Your task to perform on an android device: turn off location history Image 0: 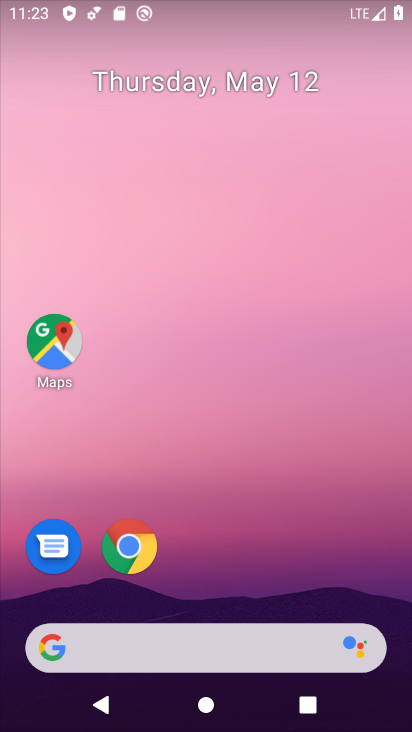
Step 0: drag from (278, 542) to (246, 96)
Your task to perform on an android device: turn off location history Image 1: 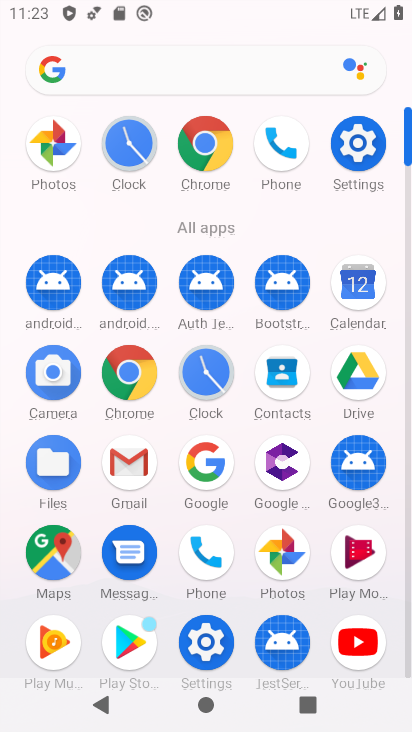
Step 1: click (364, 143)
Your task to perform on an android device: turn off location history Image 2: 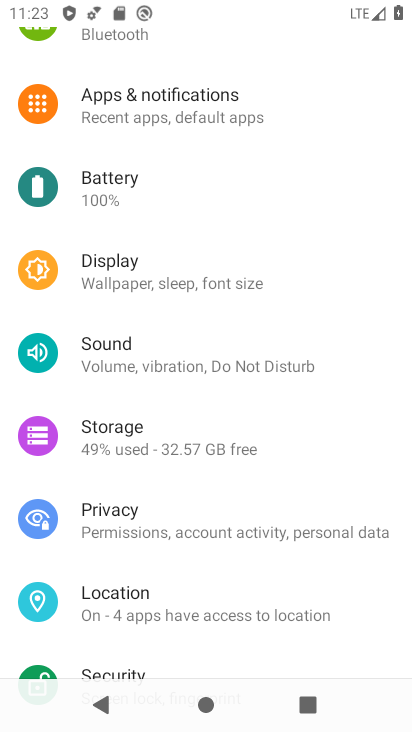
Step 2: click (172, 584)
Your task to perform on an android device: turn off location history Image 3: 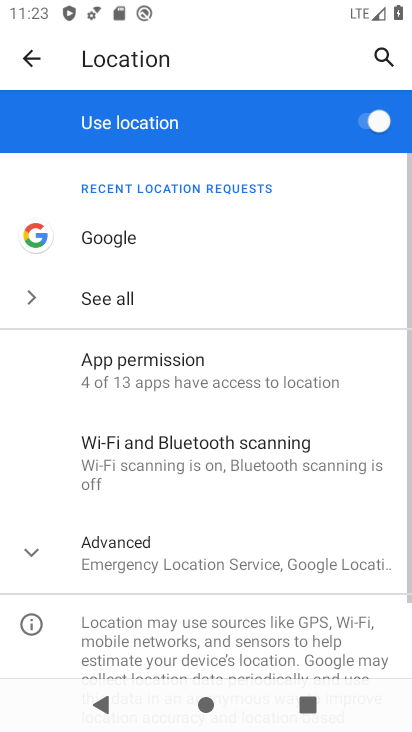
Step 3: click (232, 568)
Your task to perform on an android device: turn off location history Image 4: 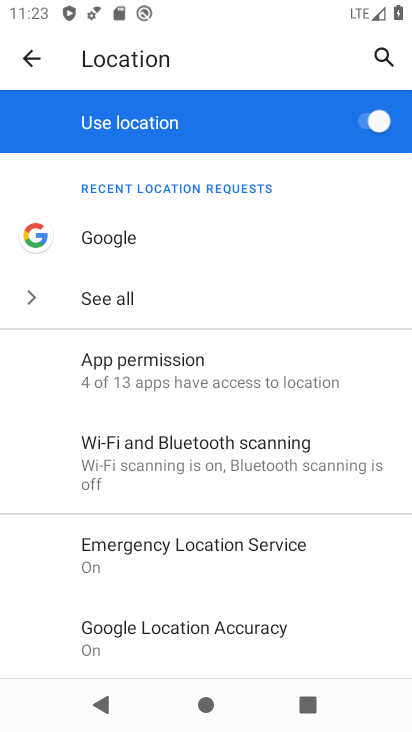
Step 4: drag from (296, 642) to (272, 391)
Your task to perform on an android device: turn off location history Image 5: 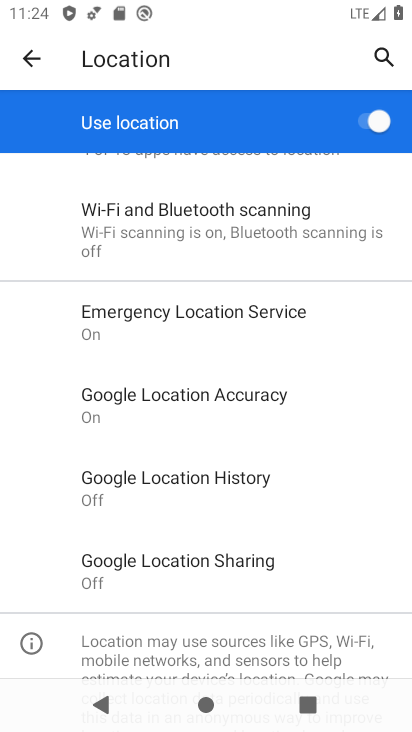
Step 5: click (200, 481)
Your task to perform on an android device: turn off location history Image 6: 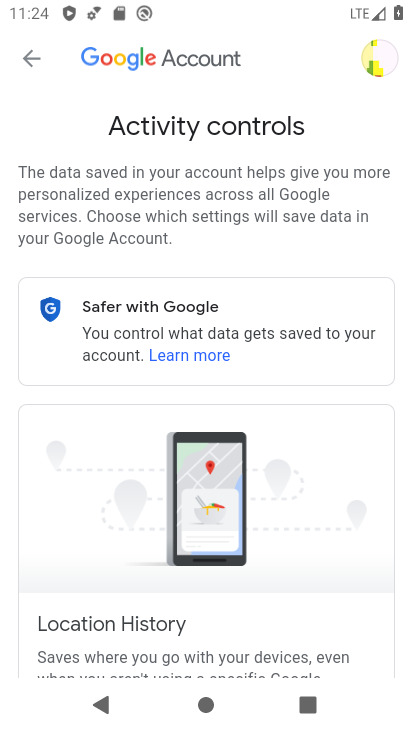
Step 6: drag from (339, 566) to (328, 310)
Your task to perform on an android device: turn off location history Image 7: 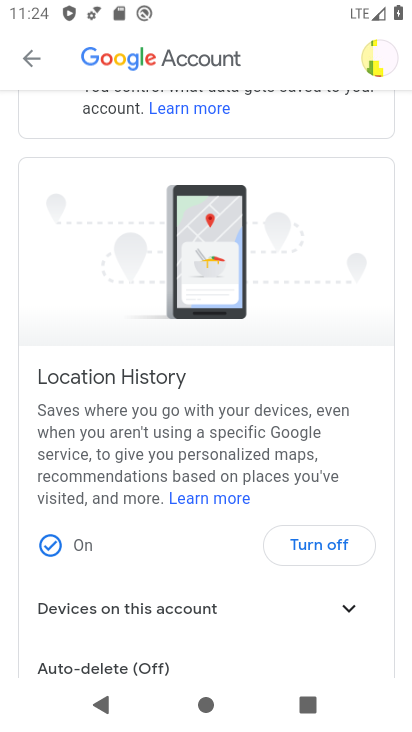
Step 7: click (327, 538)
Your task to perform on an android device: turn off location history Image 8: 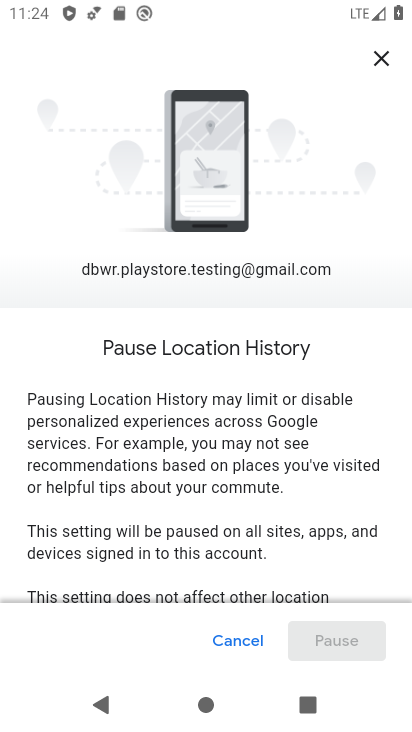
Step 8: drag from (327, 538) to (233, 109)
Your task to perform on an android device: turn off location history Image 9: 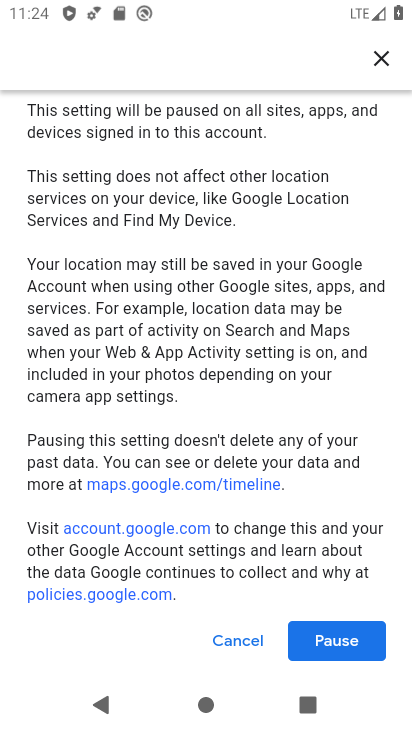
Step 9: click (346, 633)
Your task to perform on an android device: turn off location history Image 10: 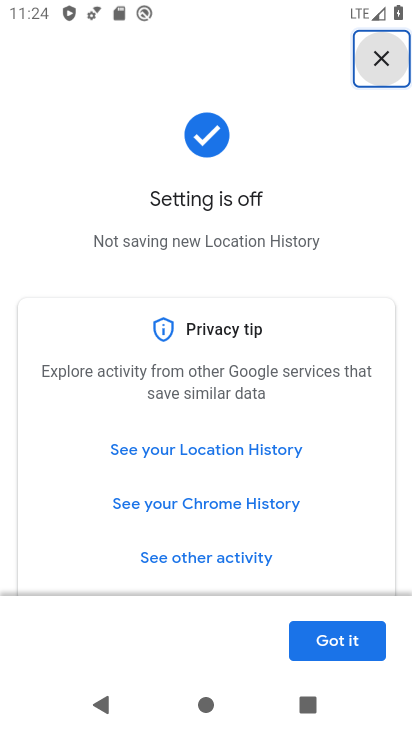
Step 10: click (346, 633)
Your task to perform on an android device: turn off location history Image 11: 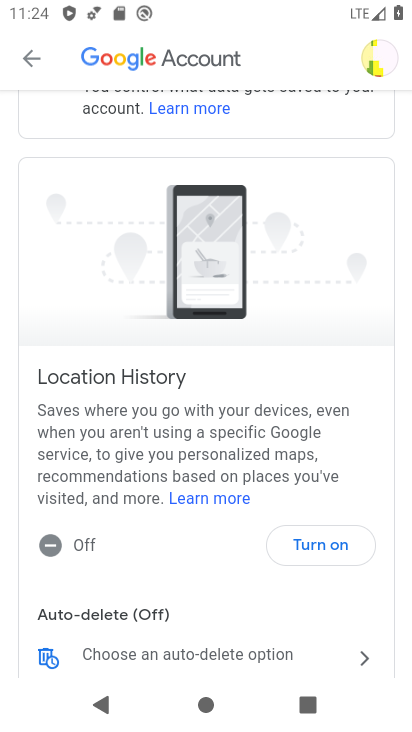
Step 11: task complete